Your task to perform on an android device: Is it going to rain this weekend? Image 0: 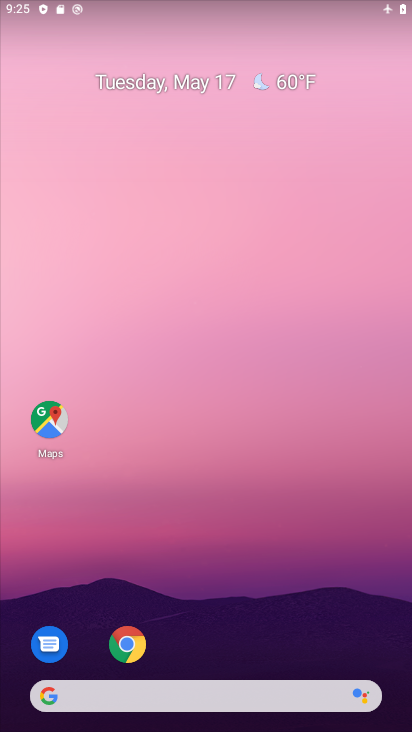
Step 0: drag from (281, 582) to (281, 204)
Your task to perform on an android device: Is it going to rain this weekend? Image 1: 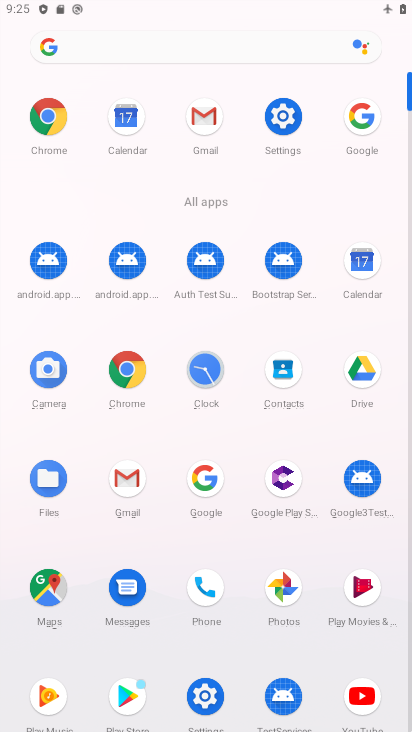
Step 1: click (205, 484)
Your task to perform on an android device: Is it going to rain this weekend? Image 2: 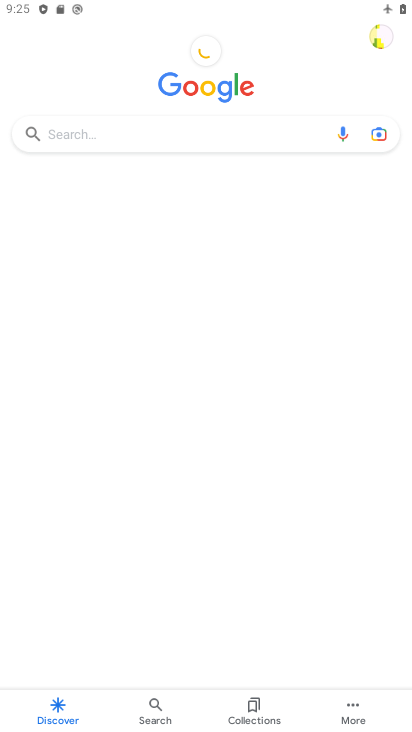
Step 2: click (166, 130)
Your task to perform on an android device: Is it going to rain this weekend? Image 3: 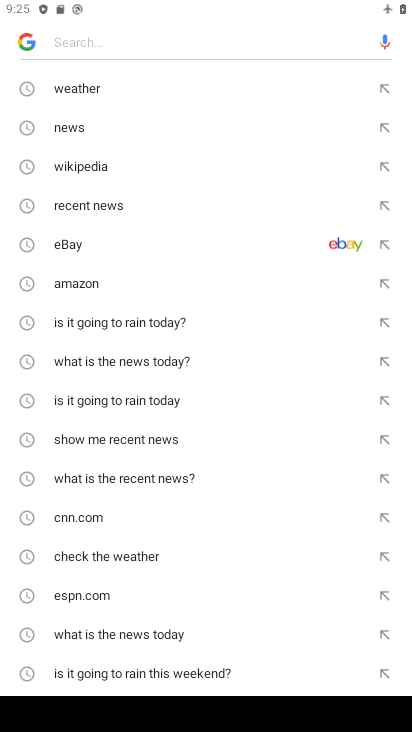
Step 3: click (184, 678)
Your task to perform on an android device: Is it going to rain this weekend? Image 4: 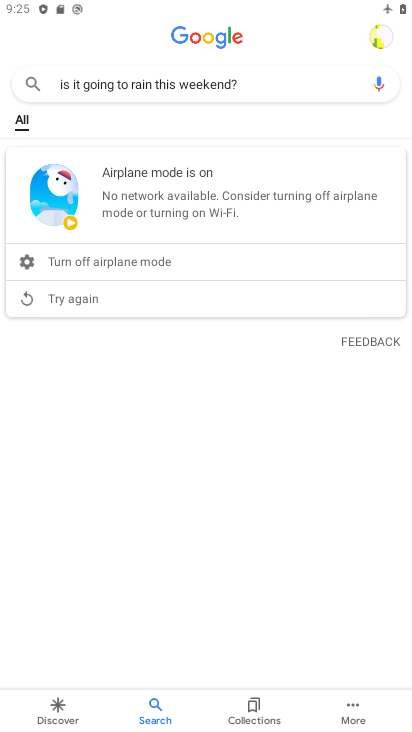
Step 4: task complete